Your task to perform on an android device: check android version Image 0: 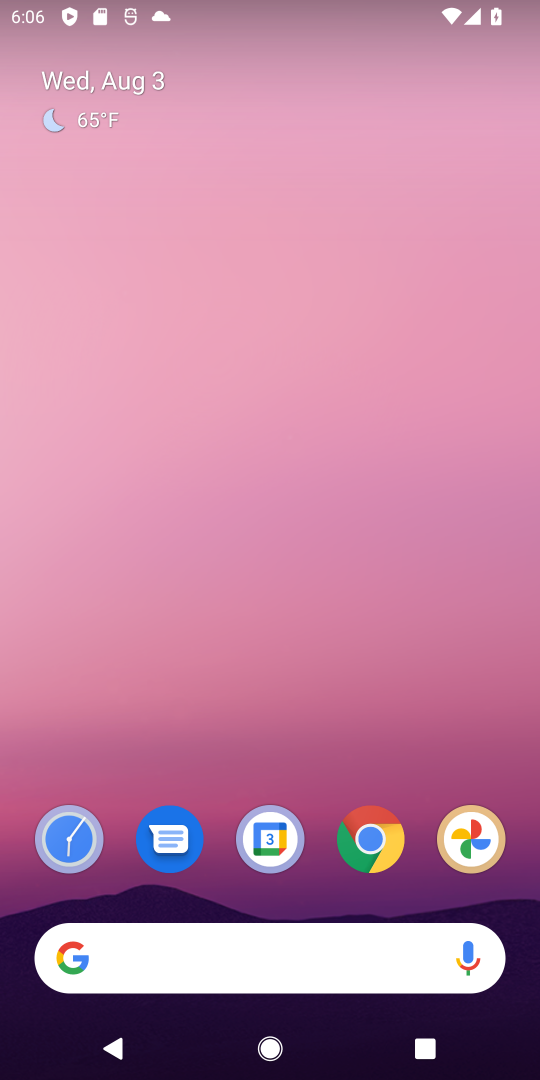
Step 0: drag from (322, 697) to (383, 2)
Your task to perform on an android device: check android version Image 1: 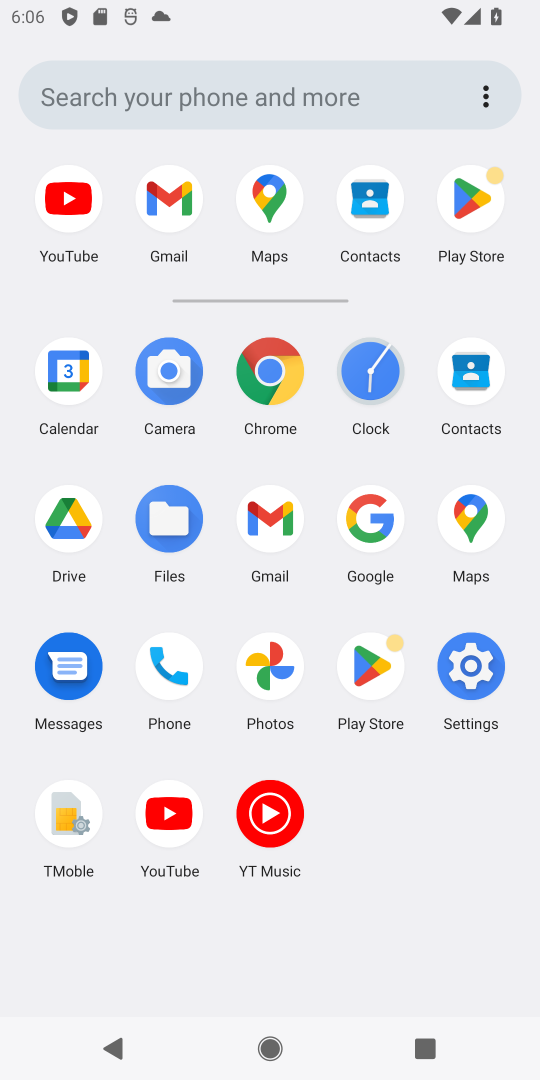
Step 1: click (461, 671)
Your task to perform on an android device: check android version Image 2: 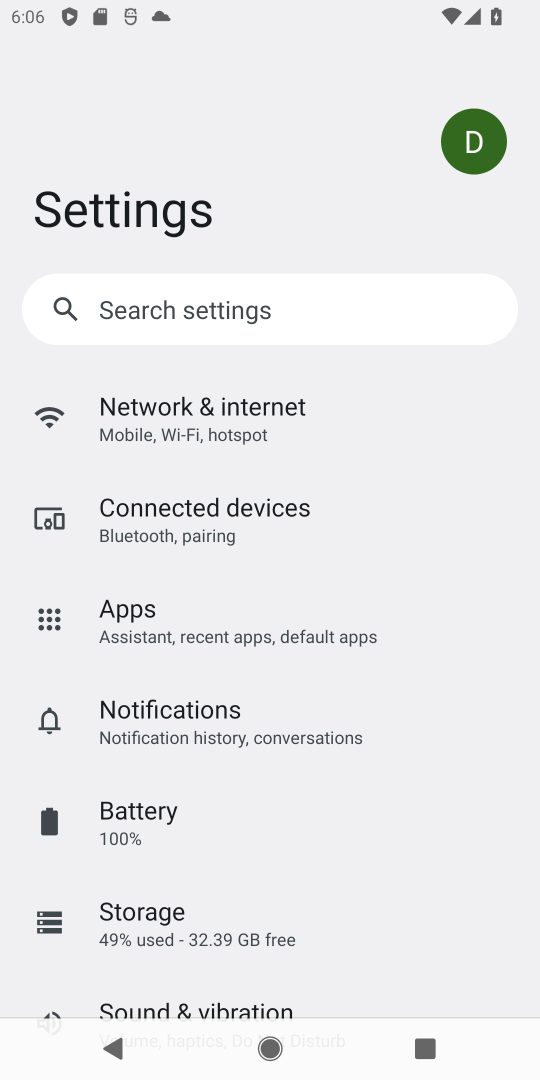
Step 2: drag from (209, 888) to (408, 15)
Your task to perform on an android device: check android version Image 3: 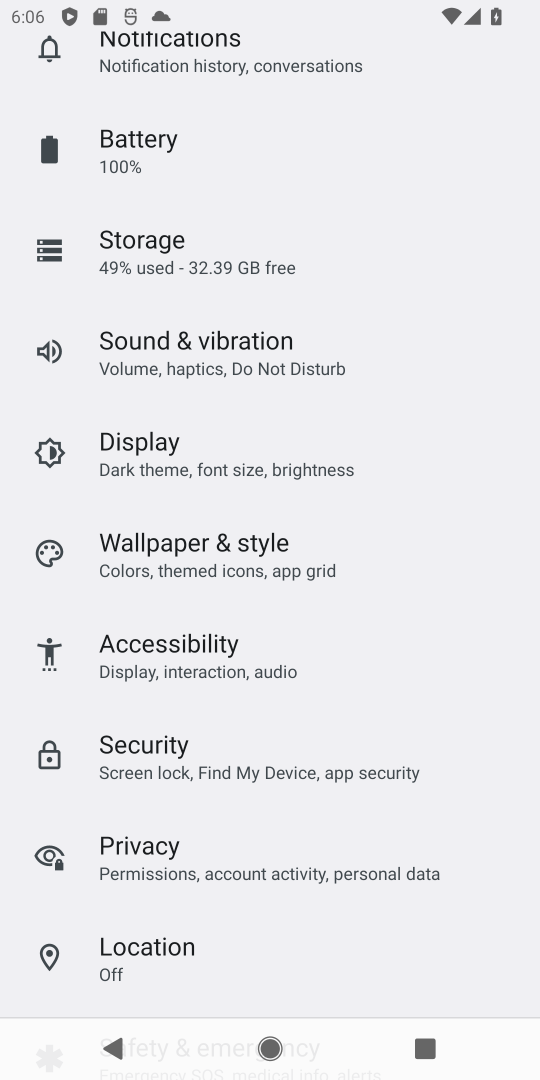
Step 3: drag from (244, 943) to (324, 11)
Your task to perform on an android device: check android version Image 4: 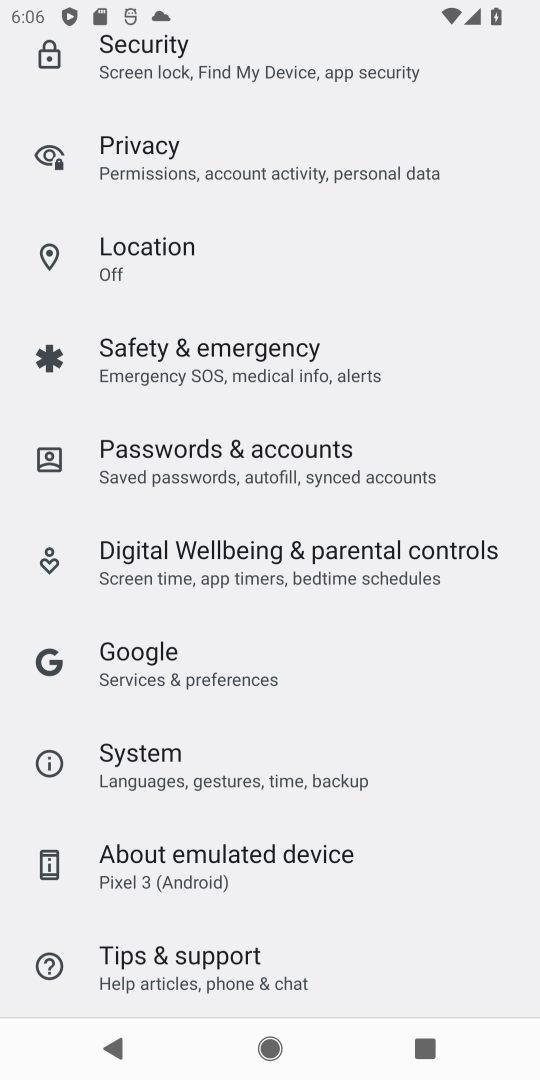
Step 4: drag from (182, 879) to (339, 8)
Your task to perform on an android device: check android version Image 5: 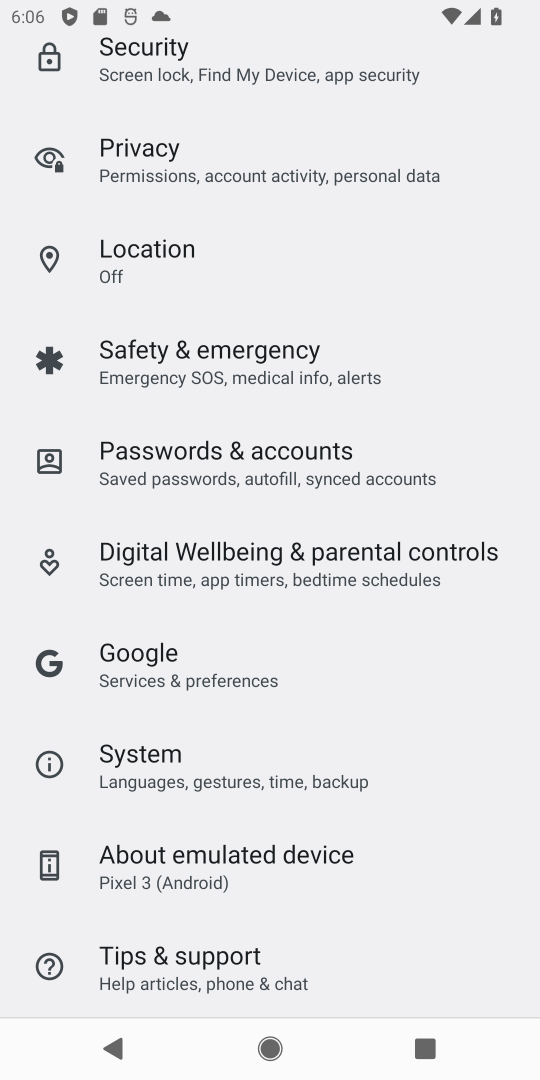
Step 5: click (210, 873)
Your task to perform on an android device: check android version Image 6: 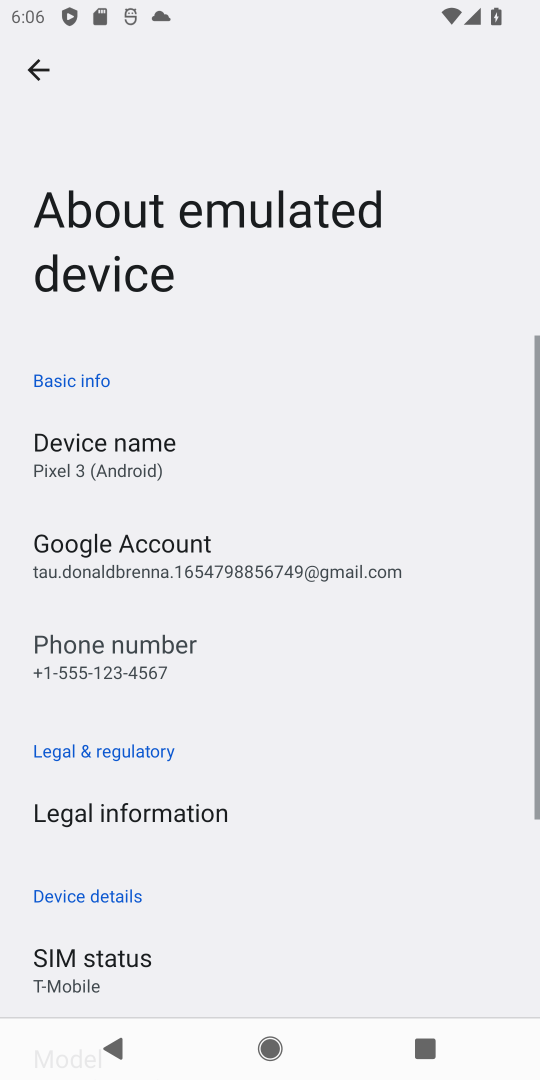
Step 6: drag from (187, 947) to (321, 6)
Your task to perform on an android device: check android version Image 7: 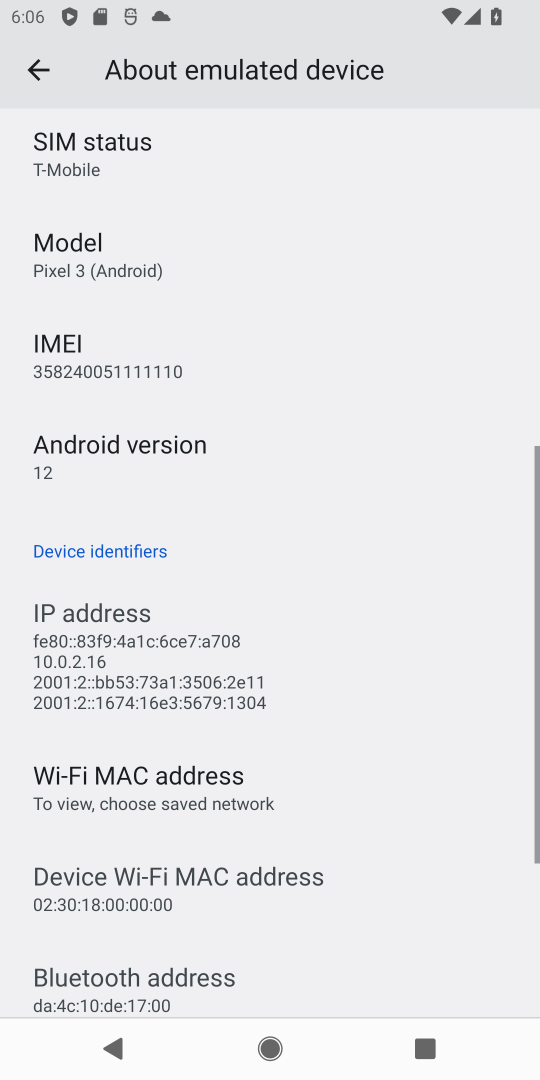
Step 7: drag from (182, 933) to (229, 820)
Your task to perform on an android device: check android version Image 8: 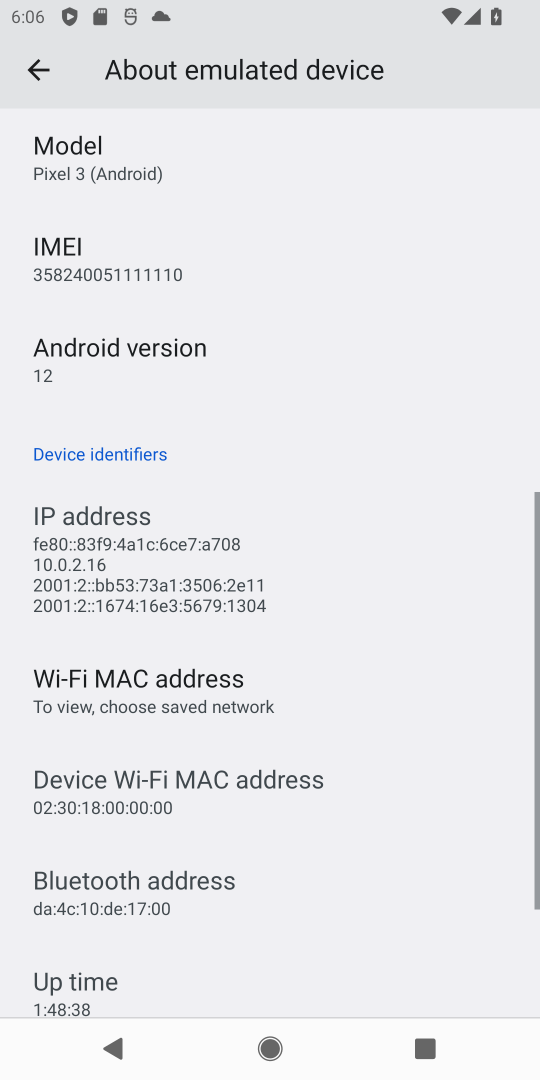
Step 8: click (121, 352)
Your task to perform on an android device: check android version Image 9: 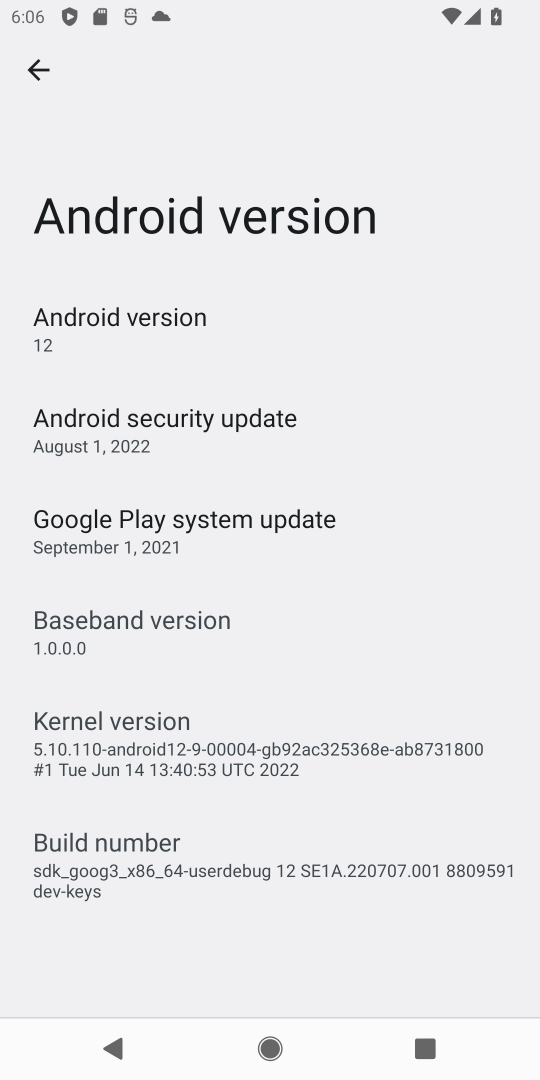
Step 9: click (79, 337)
Your task to perform on an android device: check android version Image 10: 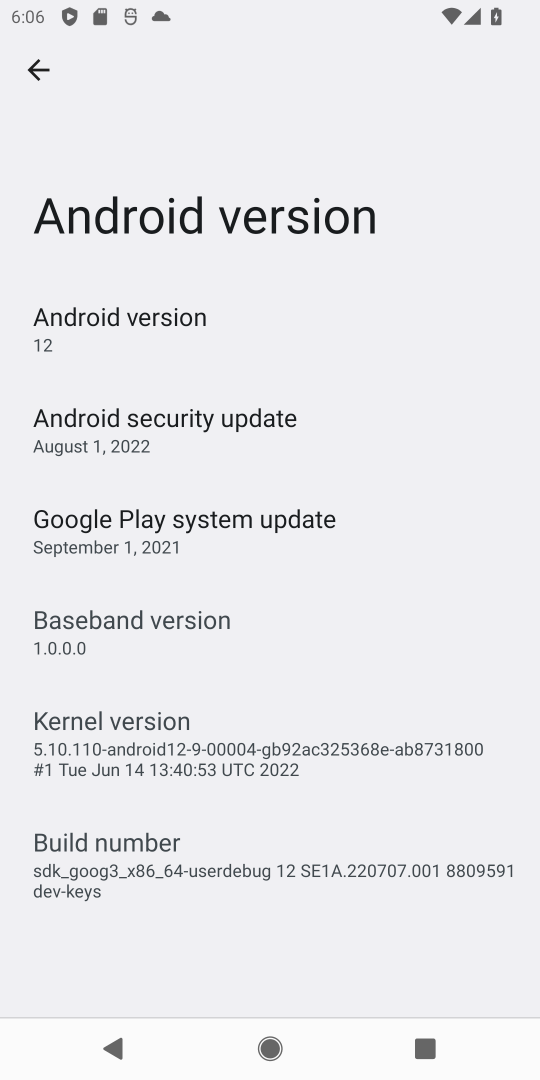
Step 10: click (196, 333)
Your task to perform on an android device: check android version Image 11: 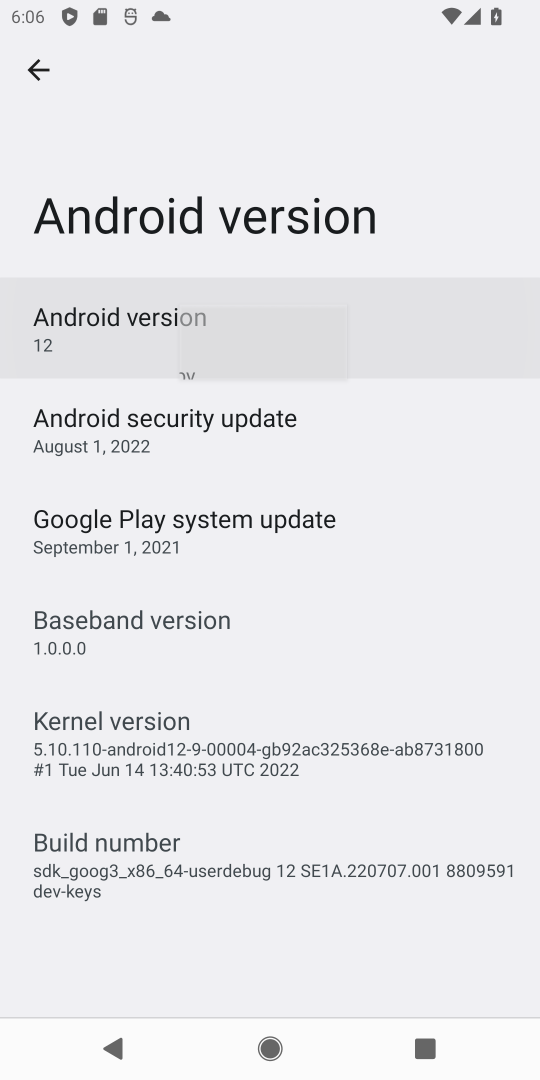
Step 11: task complete